Your task to perform on an android device: What's the weather? Image 0: 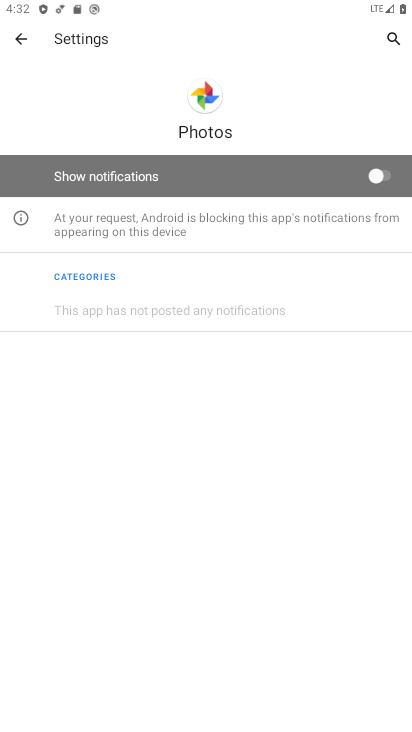
Step 0: press back button
Your task to perform on an android device: What's the weather? Image 1: 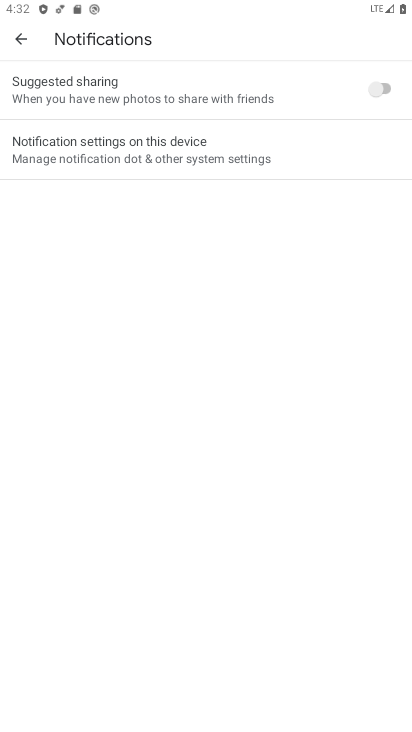
Step 1: press home button
Your task to perform on an android device: What's the weather? Image 2: 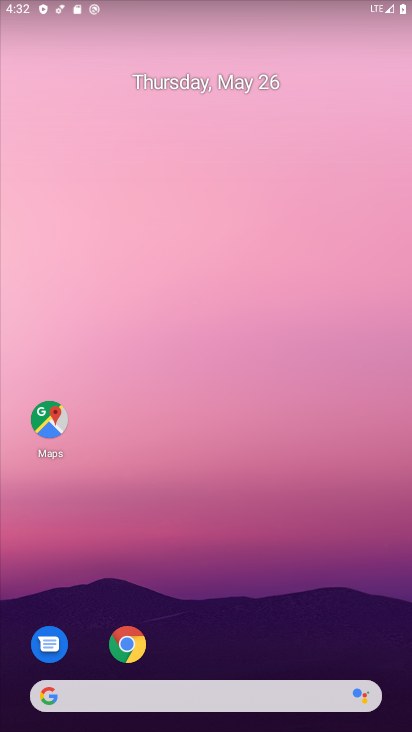
Step 2: drag from (272, 583) to (202, 41)
Your task to perform on an android device: What's the weather? Image 3: 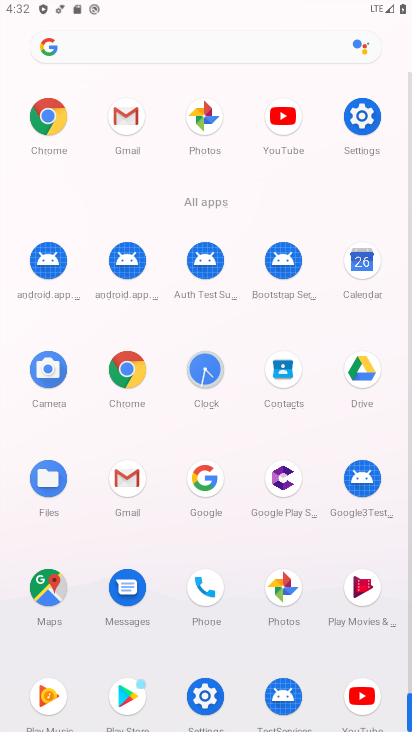
Step 3: click (125, 369)
Your task to perform on an android device: What's the weather? Image 4: 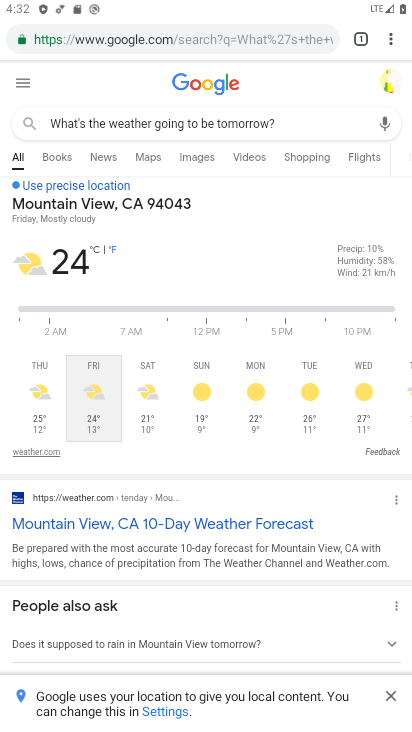
Step 4: click (187, 46)
Your task to perform on an android device: What's the weather? Image 5: 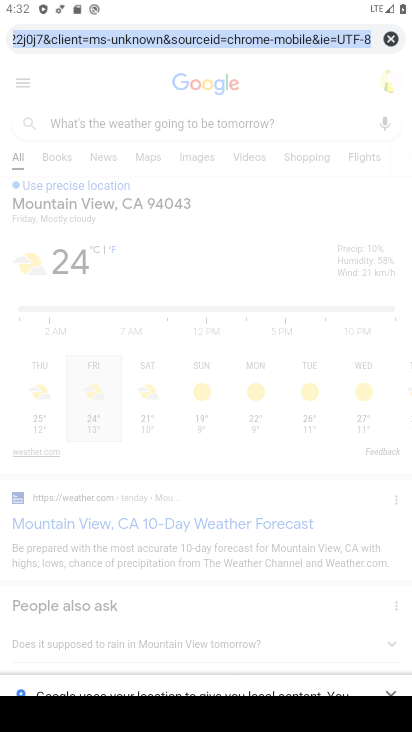
Step 5: click (394, 34)
Your task to perform on an android device: What's the weather? Image 6: 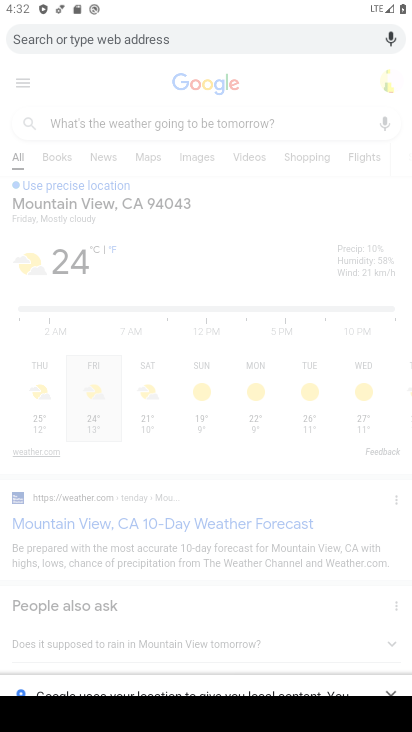
Step 6: type "What's the weather?"
Your task to perform on an android device: What's the weather? Image 7: 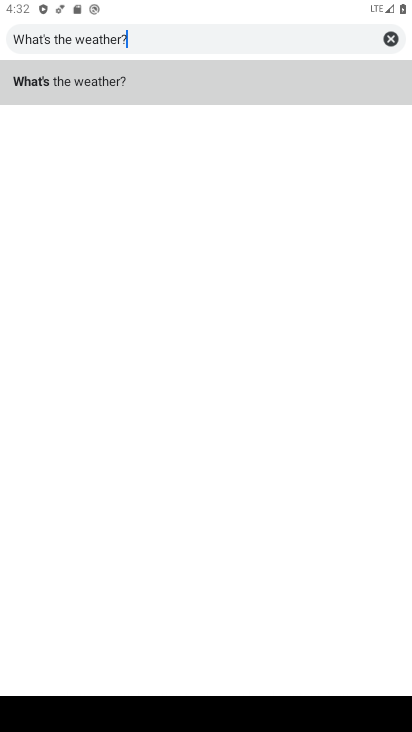
Step 7: type ""
Your task to perform on an android device: What's the weather? Image 8: 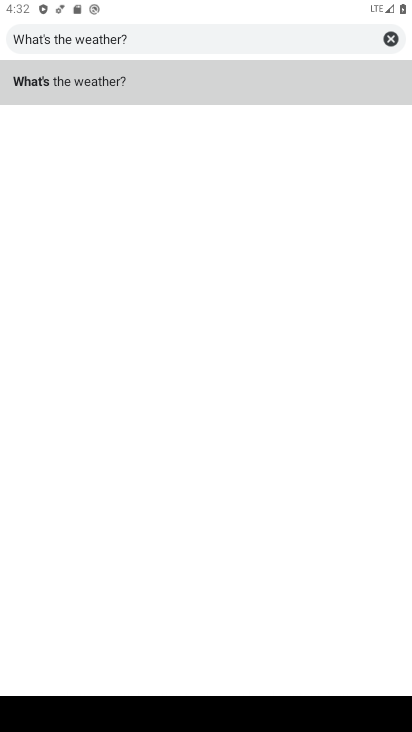
Step 8: click (177, 69)
Your task to perform on an android device: What's the weather? Image 9: 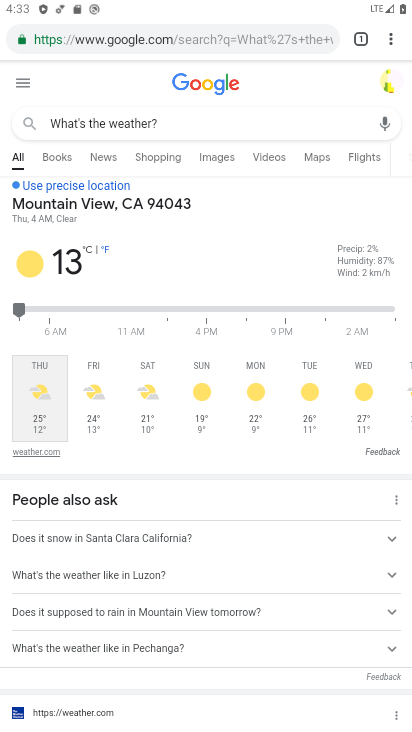
Step 9: task complete